Your task to perform on an android device: Search for a 1/2 in. x 1/2 in. x 24 in. 600 grit sander on Lowes.com Image 0: 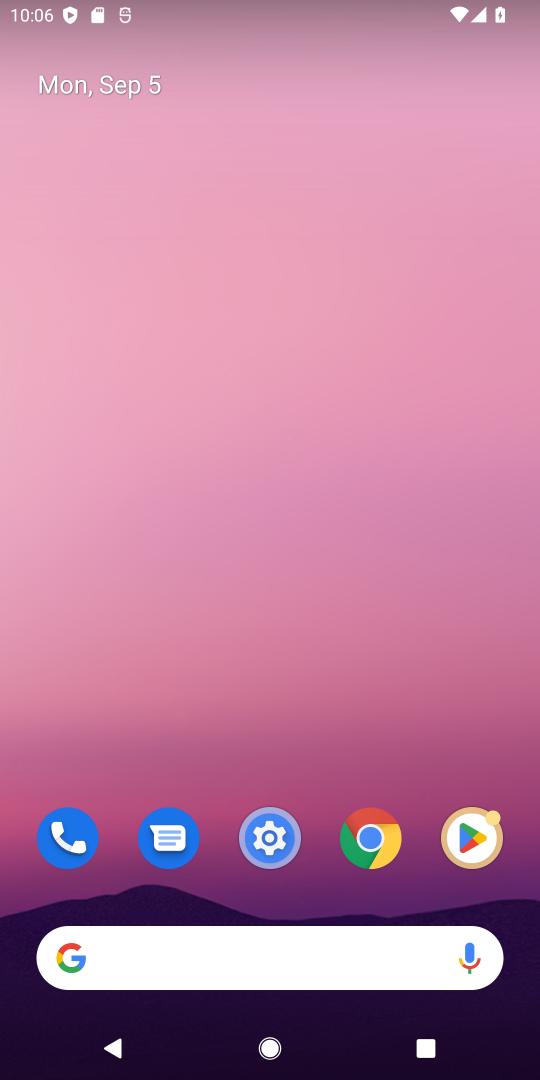
Step 0: click (301, 949)
Your task to perform on an android device: Search for a 1/2 in. x 1/2 in. x 24 in. 600 grit sander on Lowes.com Image 1: 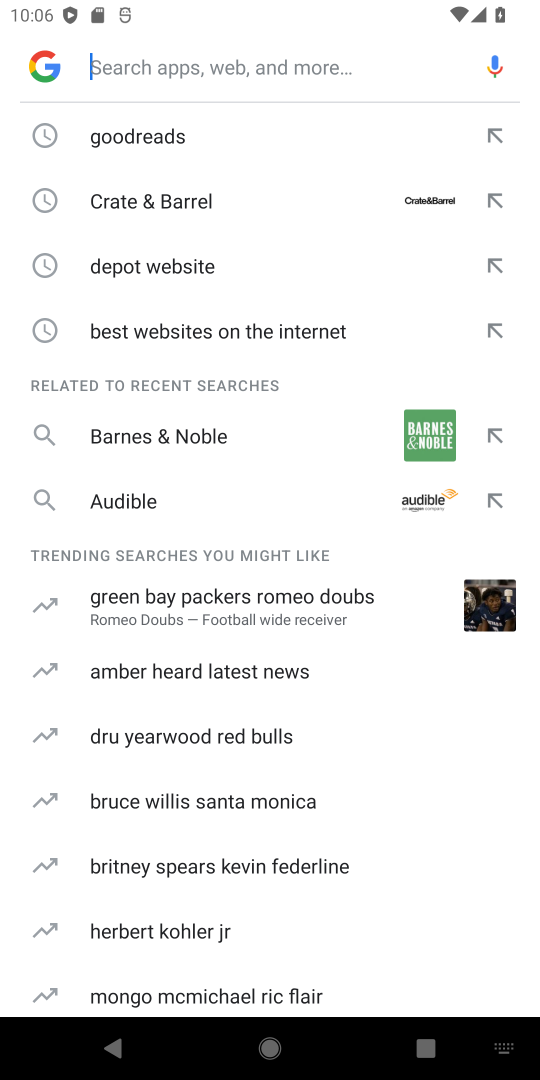
Step 1: type "Lowes.com"
Your task to perform on an android device: Search for a 1/2 in. x 1/2 in. x 24 in. 600 grit sander on Lowes.com Image 2: 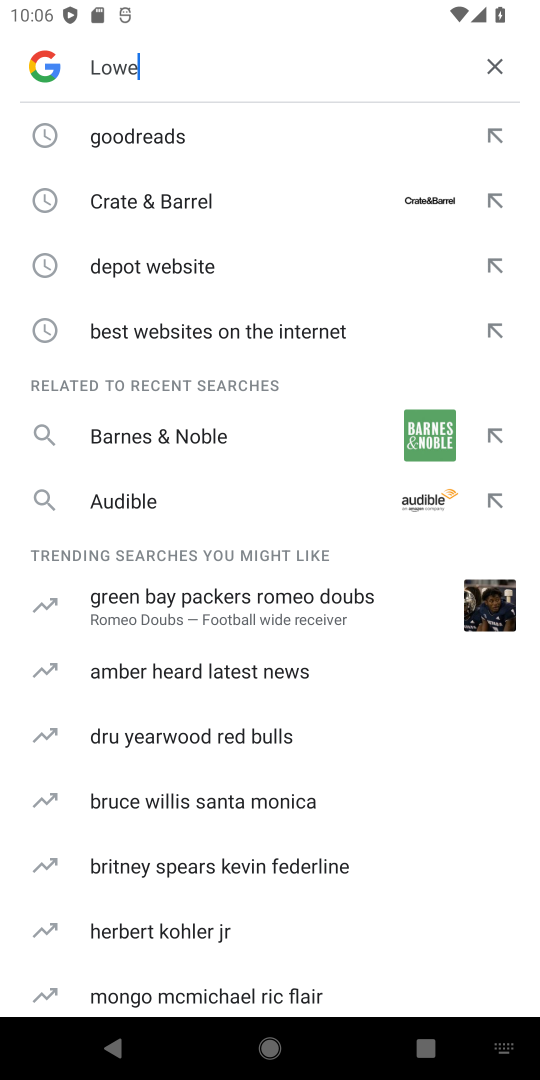
Step 2: type ""
Your task to perform on an android device: Search for a 1/2 in. x 1/2 in. x 24 in. 600 grit sander on Lowes.com Image 3: 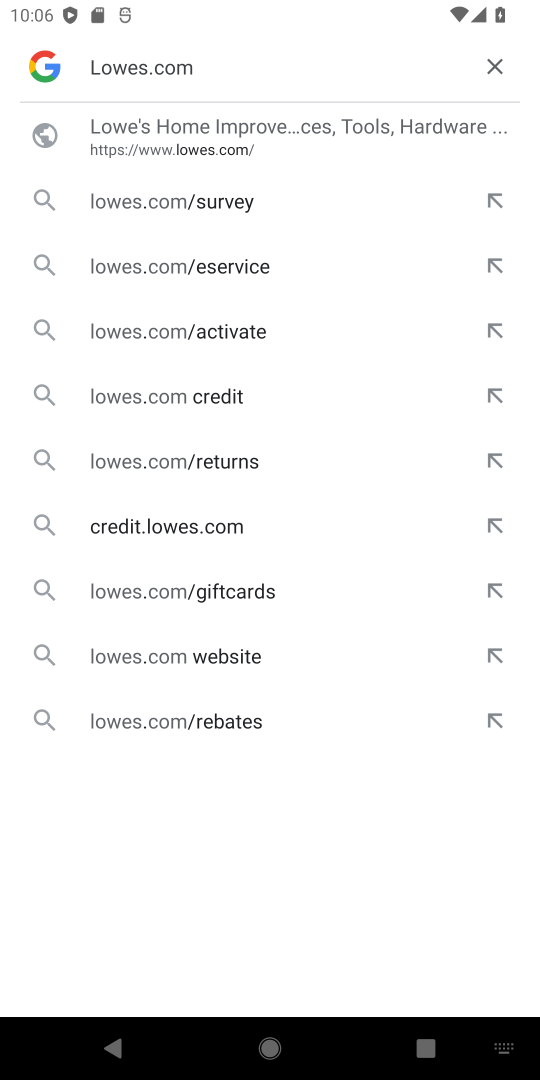
Step 3: click (310, 162)
Your task to perform on an android device: Search for a 1/2 in. x 1/2 in. x 24 in. 600 grit sander on Lowes.com Image 4: 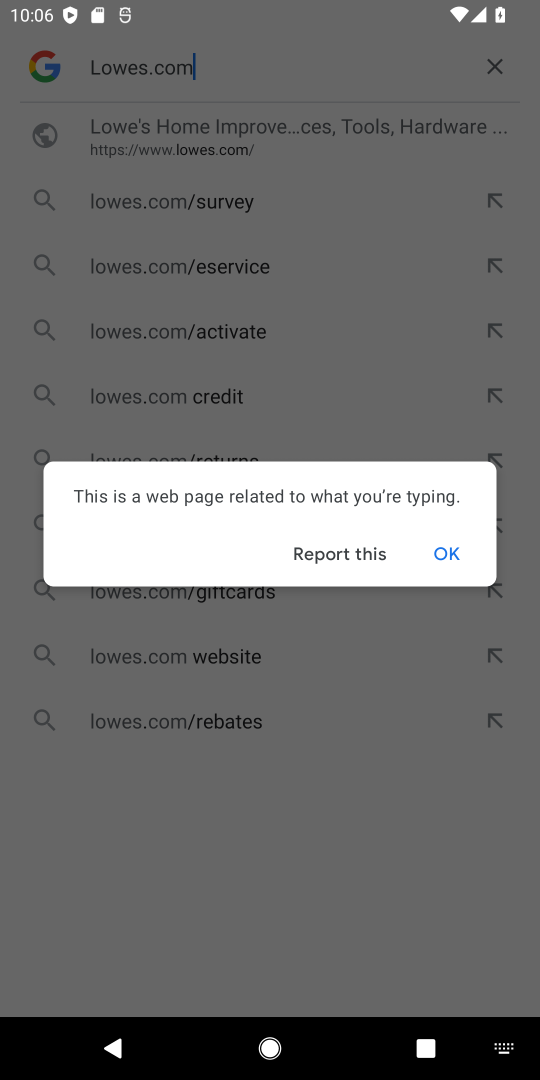
Step 4: click (440, 535)
Your task to perform on an android device: Search for a 1/2 in. x 1/2 in. x 24 in. 600 grit sander on Lowes.com Image 5: 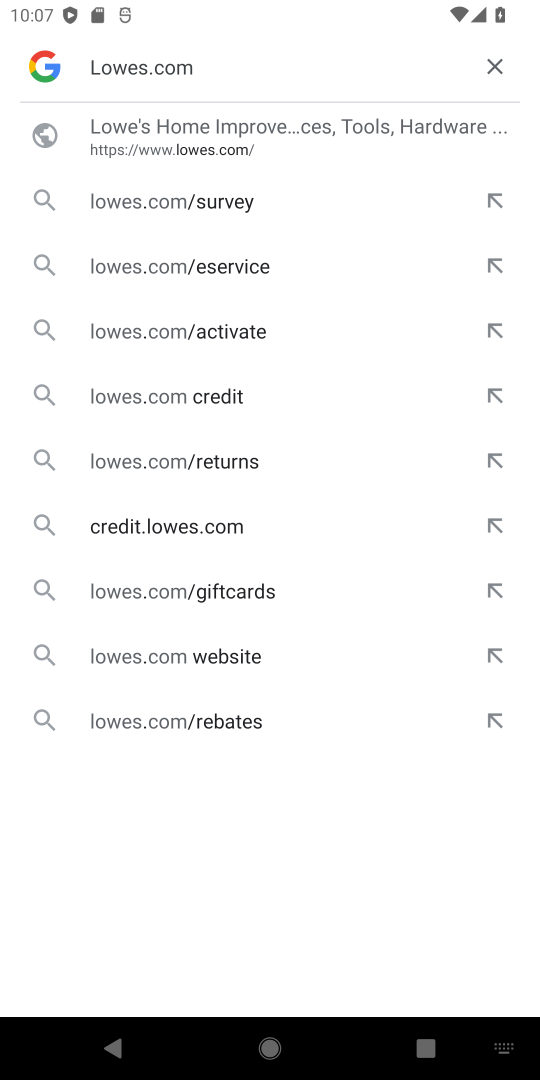
Step 5: click (271, 155)
Your task to perform on an android device: Search for a 1/2 in. x 1/2 in. x 24 in. 600 grit sander on Lowes.com Image 6: 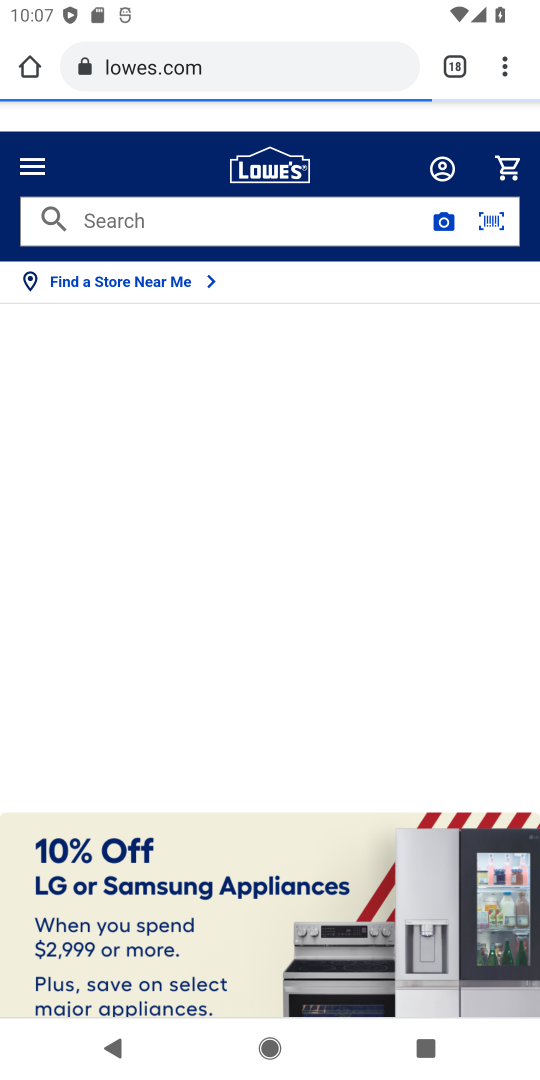
Step 6: click (316, 217)
Your task to perform on an android device: Search for a 1/2 in. x 1/2 in. x 24 in. 600 grit sander on Lowes.com Image 7: 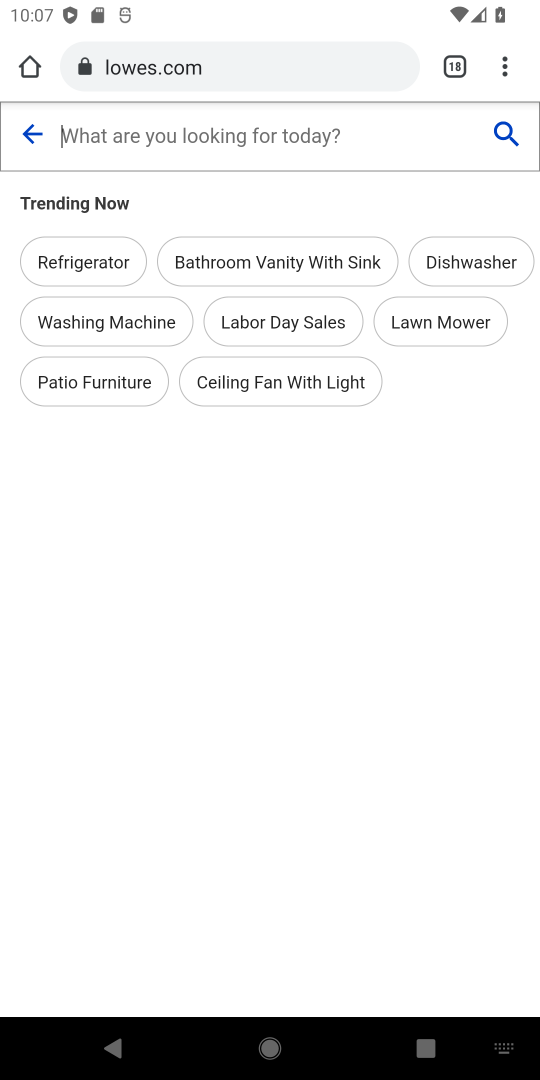
Step 7: type "1/2 in. x 1/2 in. x 24 in. 600 grit sander"
Your task to perform on an android device: Search for a 1/2 in. x 1/2 in. x 24 in. 600 grit sander on Lowes.com Image 8: 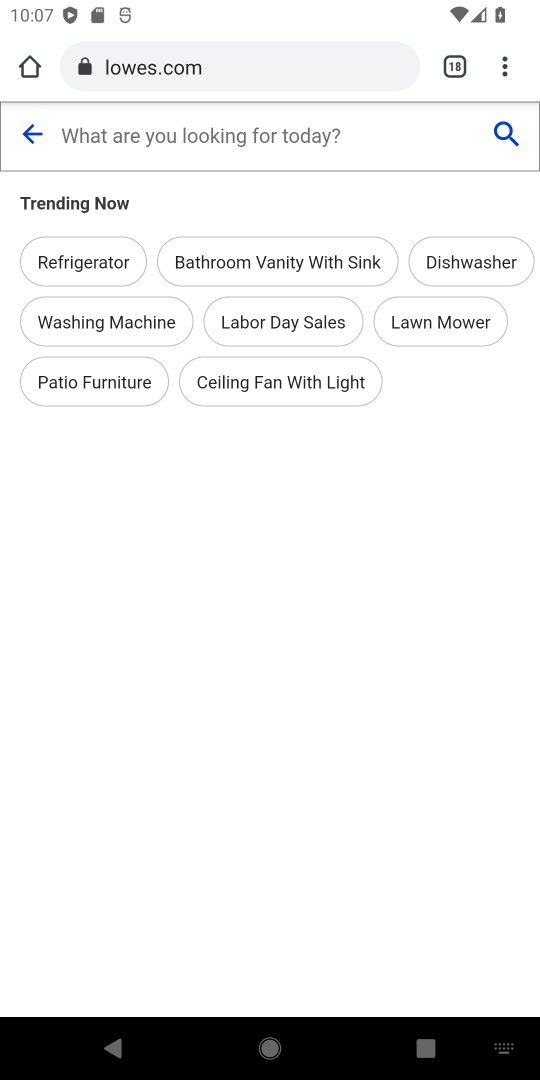
Step 8: type ""
Your task to perform on an android device: Search for a 1/2 in. x 1/2 in. x 24 in. 600 grit sander on Lowes.com Image 9: 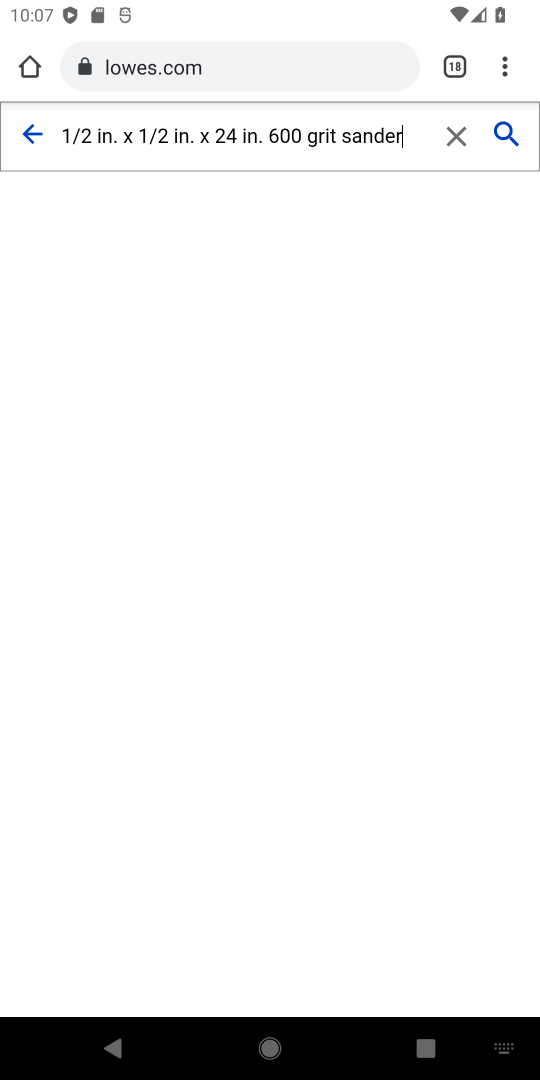
Step 9: click (497, 136)
Your task to perform on an android device: Search for a 1/2 in. x 1/2 in. x 24 in. 600 grit sander on Lowes.com Image 10: 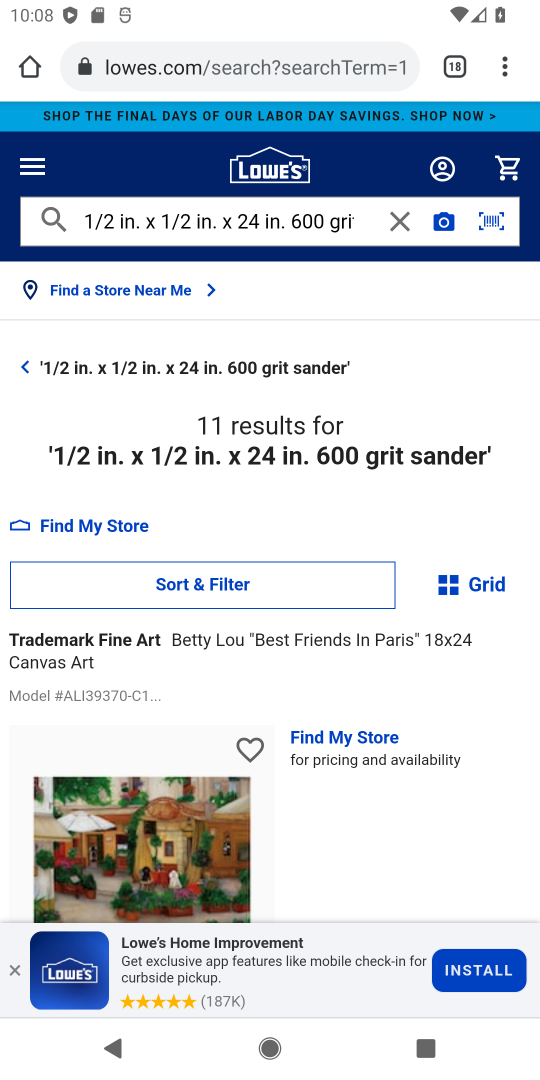
Step 10: task complete
Your task to perform on an android device: Search for a 1/2 in. x 1/2 in. x 24 in. 600 grit sander on Lowes.com Image 11: 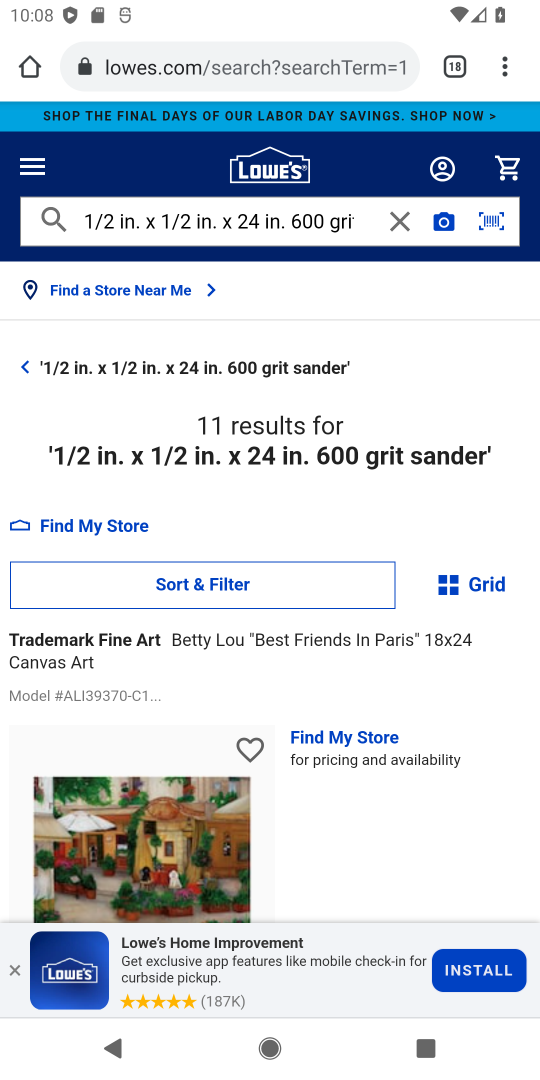
Step 11: task complete